Your task to perform on an android device: manage bookmarks in the chrome app Image 0: 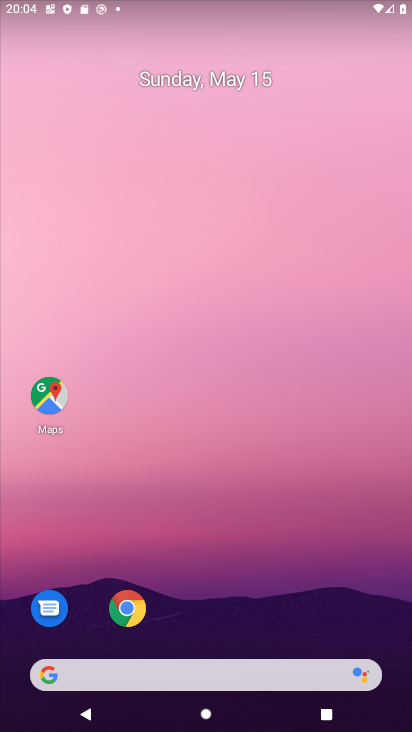
Step 0: click (128, 606)
Your task to perform on an android device: manage bookmarks in the chrome app Image 1: 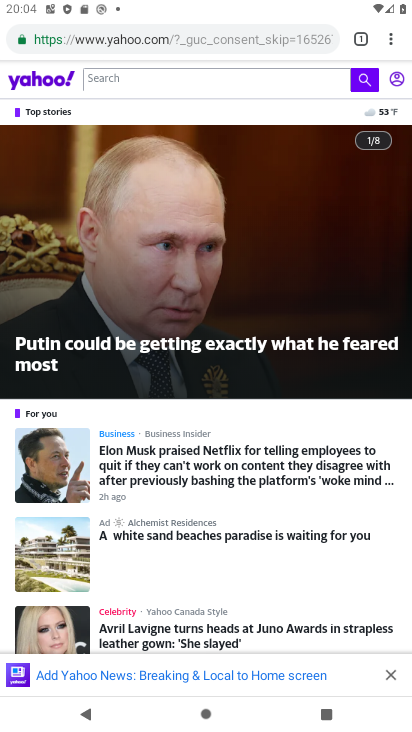
Step 1: click (386, 43)
Your task to perform on an android device: manage bookmarks in the chrome app Image 2: 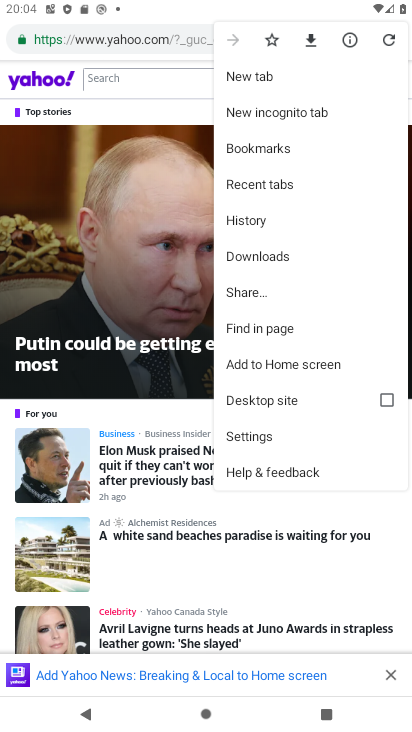
Step 2: click (298, 151)
Your task to perform on an android device: manage bookmarks in the chrome app Image 3: 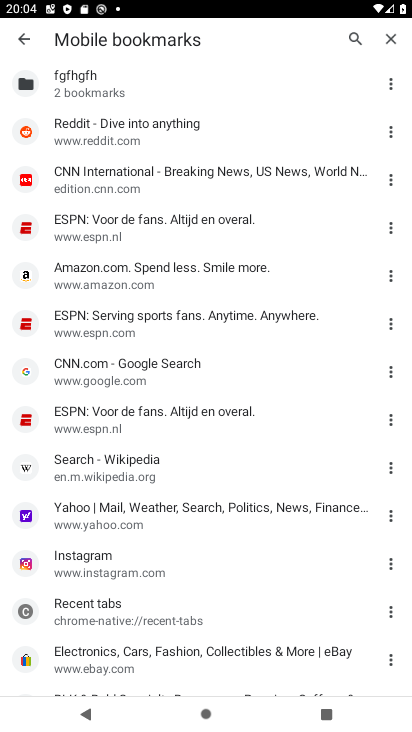
Step 3: click (378, 132)
Your task to perform on an android device: manage bookmarks in the chrome app Image 4: 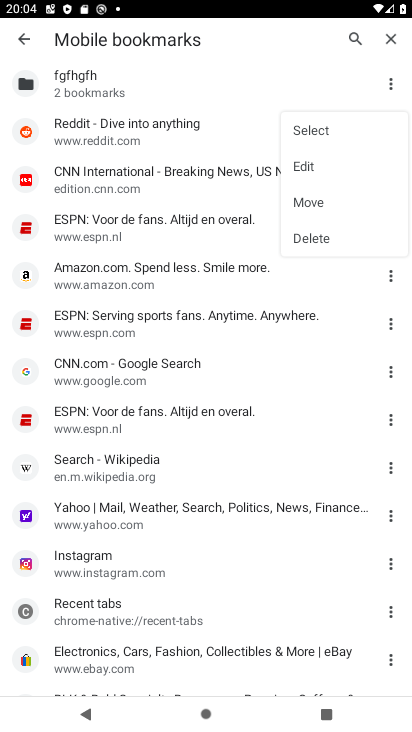
Step 4: click (324, 222)
Your task to perform on an android device: manage bookmarks in the chrome app Image 5: 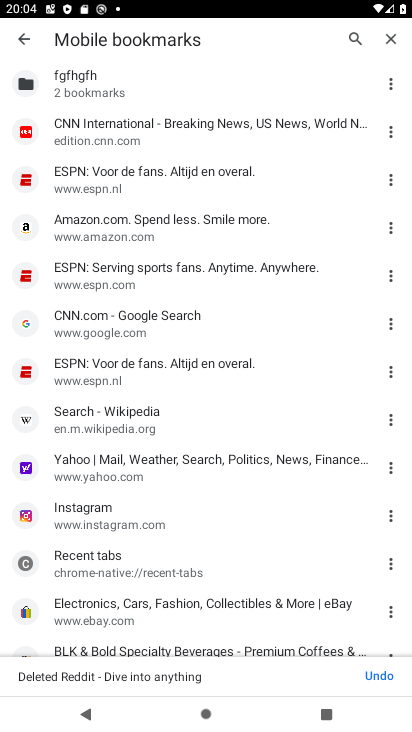
Step 5: task complete